Your task to perform on an android device: Check the news Image 0: 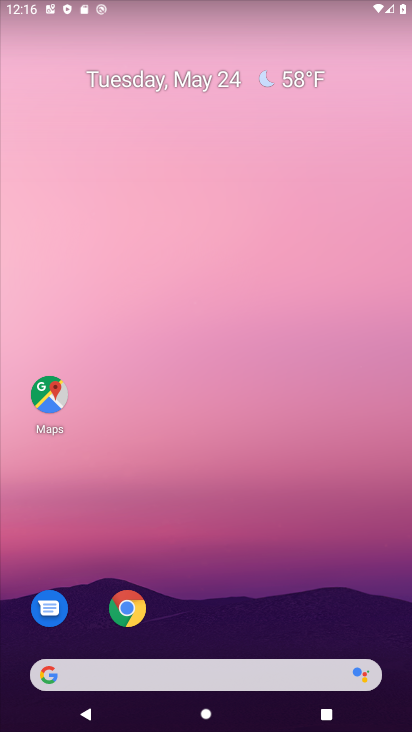
Step 0: drag from (239, 681) to (253, 230)
Your task to perform on an android device: Check the news Image 1: 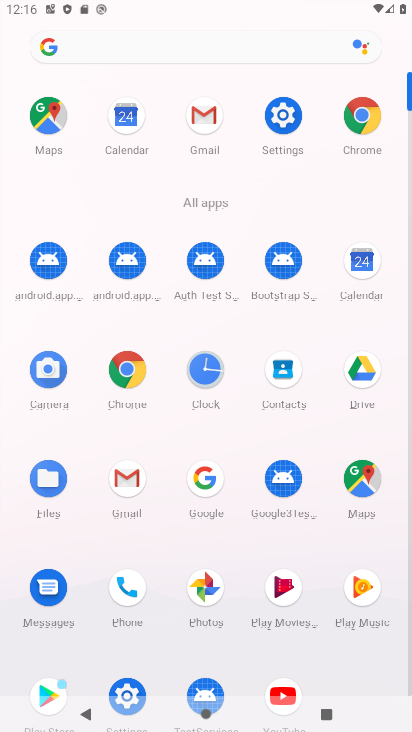
Step 1: click (124, 50)
Your task to perform on an android device: Check the news Image 2: 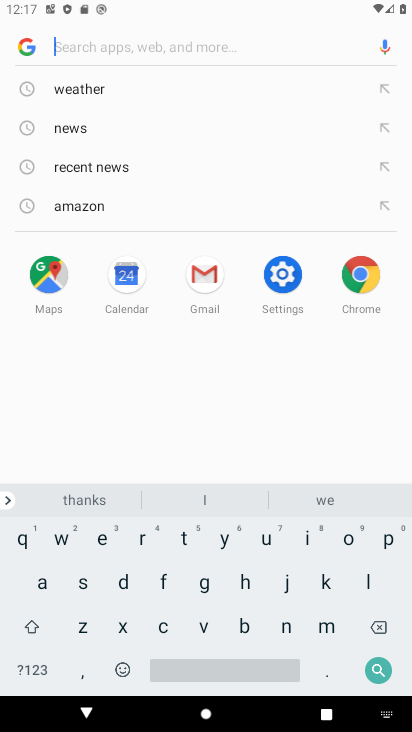
Step 2: click (123, 124)
Your task to perform on an android device: Check the news Image 3: 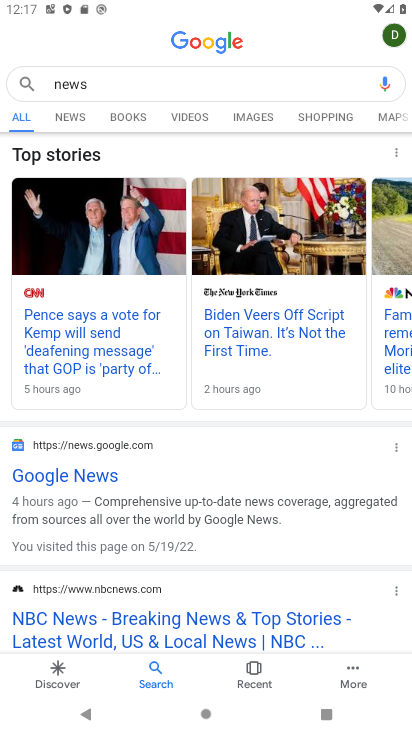
Step 3: task complete